Your task to perform on an android device: open a bookmark in the chrome app Image 0: 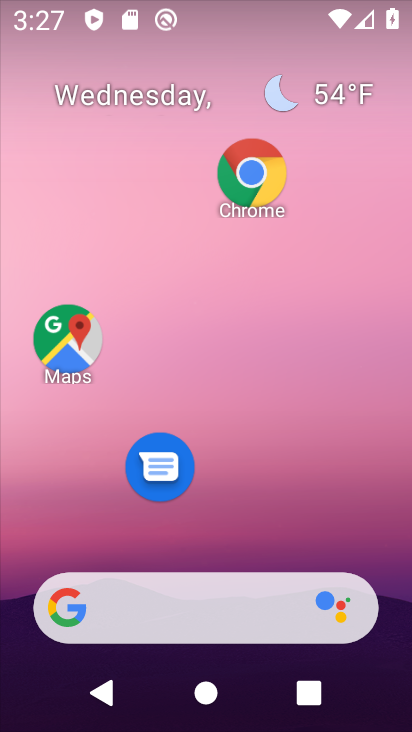
Step 0: click (246, 179)
Your task to perform on an android device: open a bookmark in the chrome app Image 1: 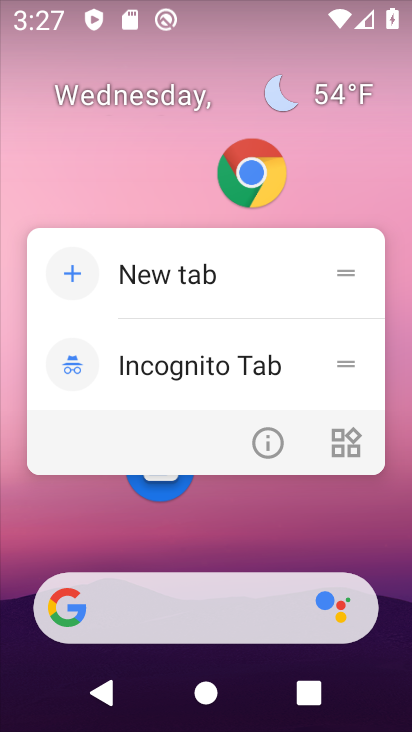
Step 1: click (266, 171)
Your task to perform on an android device: open a bookmark in the chrome app Image 2: 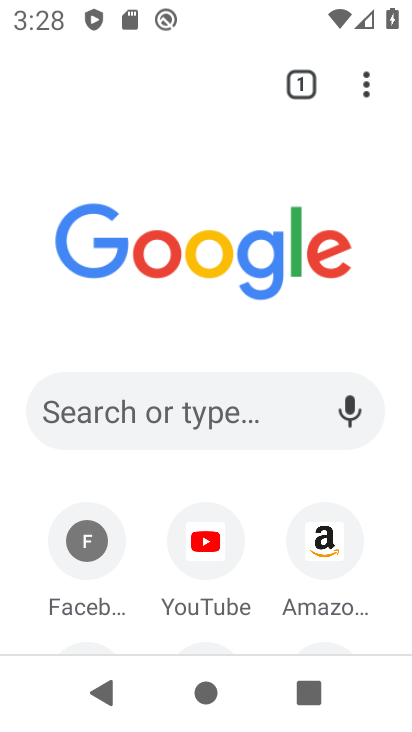
Step 2: task complete